Your task to perform on an android device: make emails show in primary in the gmail app Image 0: 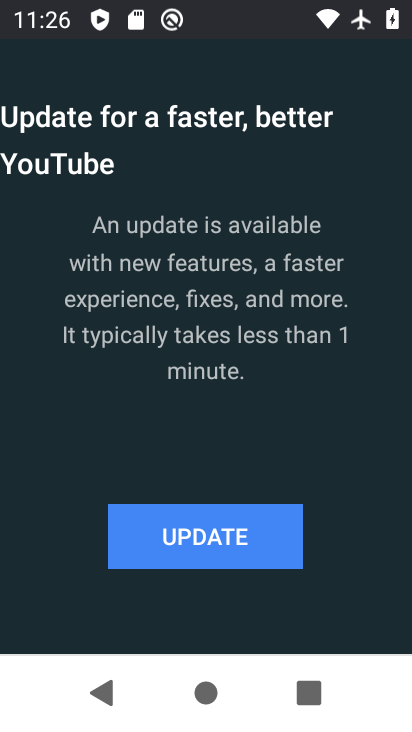
Step 0: press home button
Your task to perform on an android device: make emails show in primary in the gmail app Image 1: 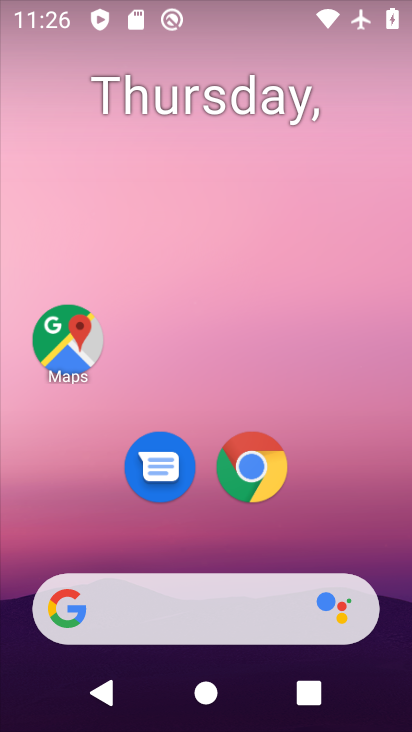
Step 1: drag from (330, 551) to (317, 3)
Your task to perform on an android device: make emails show in primary in the gmail app Image 2: 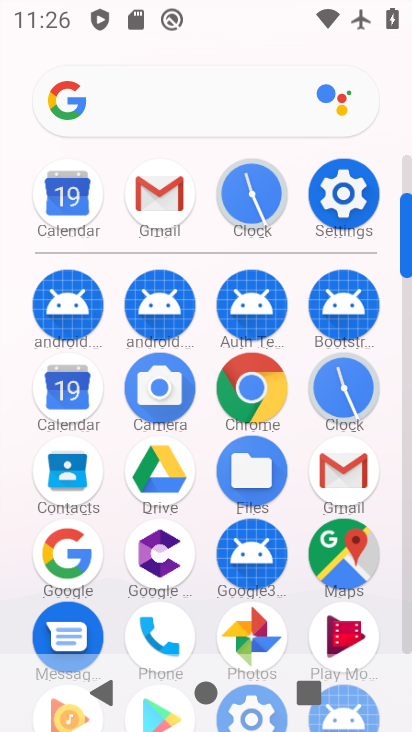
Step 2: click (154, 198)
Your task to perform on an android device: make emails show in primary in the gmail app Image 3: 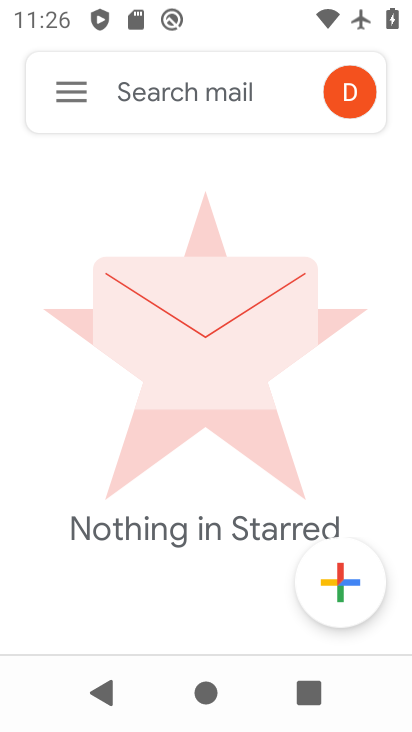
Step 3: click (68, 94)
Your task to perform on an android device: make emails show in primary in the gmail app Image 4: 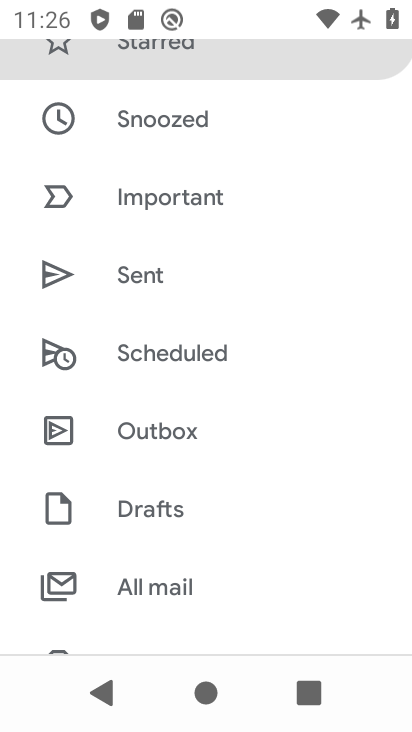
Step 4: drag from (258, 544) to (225, 144)
Your task to perform on an android device: make emails show in primary in the gmail app Image 5: 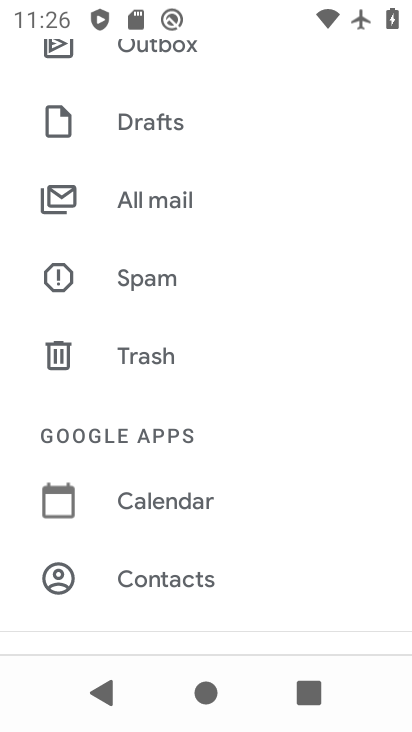
Step 5: drag from (236, 553) to (228, 199)
Your task to perform on an android device: make emails show in primary in the gmail app Image 6: 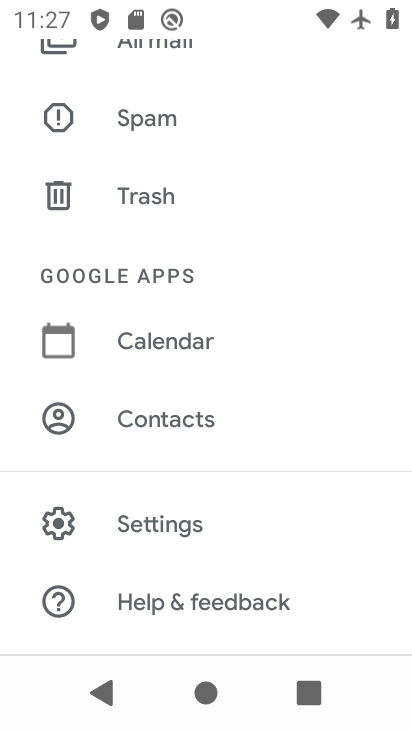
Step 6: click (193, 532)
Your task to perform on an android device: make emails show in primary in the gmail app Image 7: 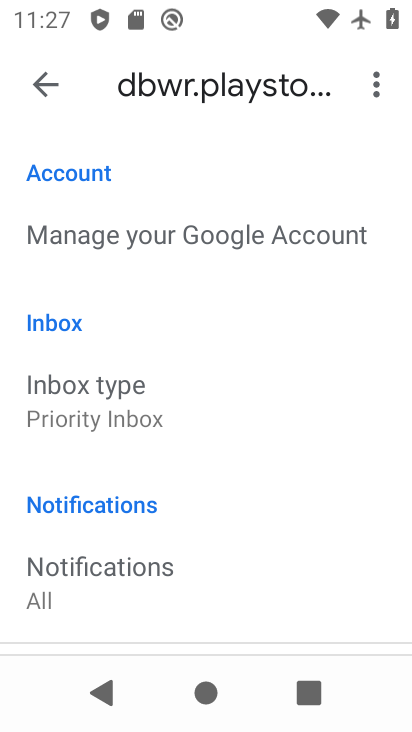
Step 7: task complete